Your task to perform on an android device: Go to battery settings Image 0: 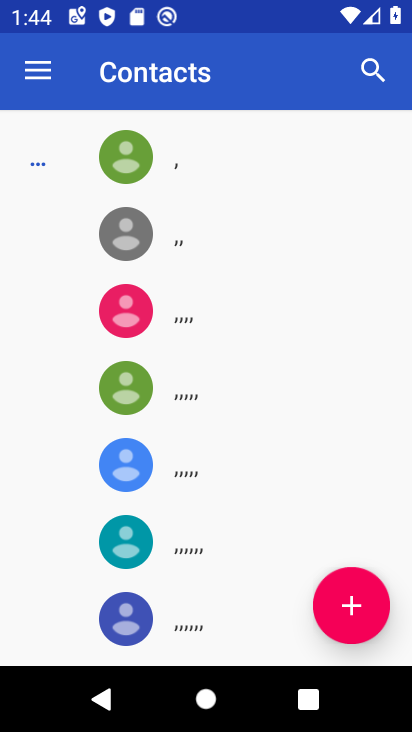
Step 0: press home button
Your task to perform on an android device: Go to battery settings Image 1: 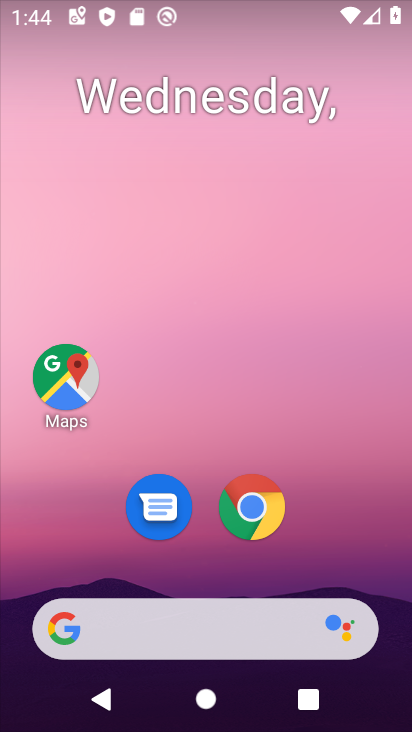
Step 1: drag from (387, 518) to (334, 204)
Your task to perform on an android device: Go to battery settings Image 2: 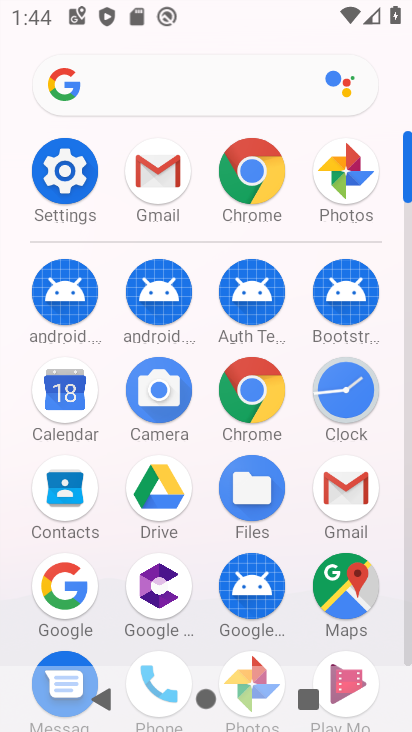
Step 2: click (60, 176)
Your task to perform on an android device: Go to battery settings Image 3: 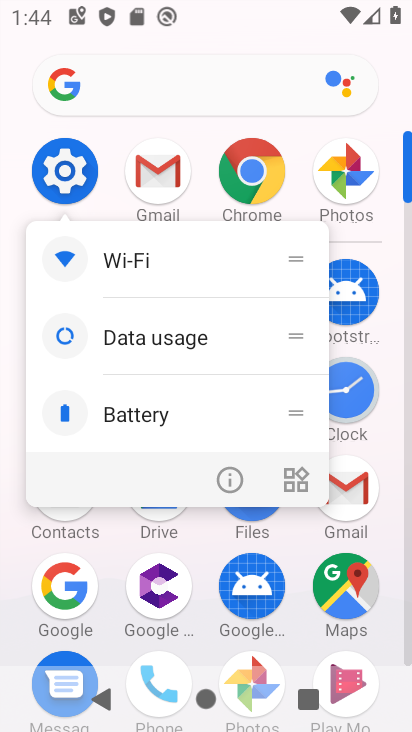
Step 3: click (66, 167)
Your task to perform on an android device: Go to battery settings Image 4: 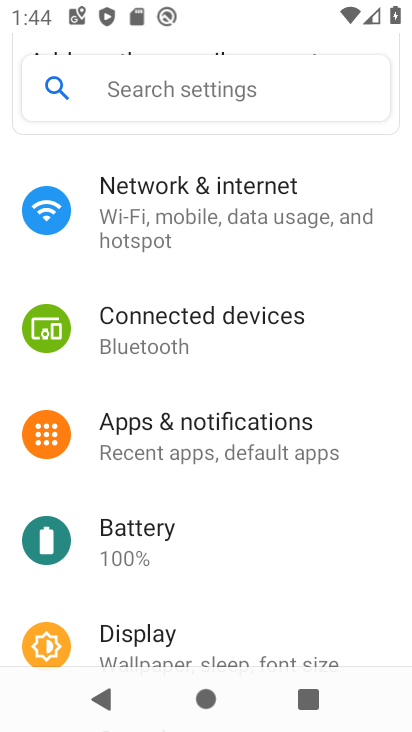
Step 4: click (142, 531)
Your task to perform on an android device: Go to battery settings Image 5: 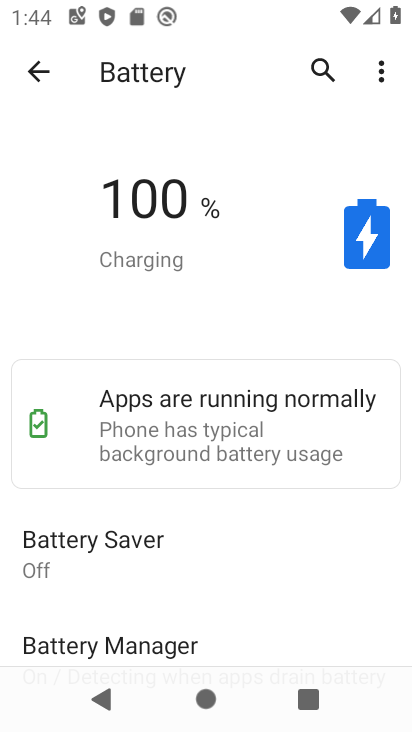
Step 5: task complete